Your task to perform on an android device: change the upload size in google photos Image 0: 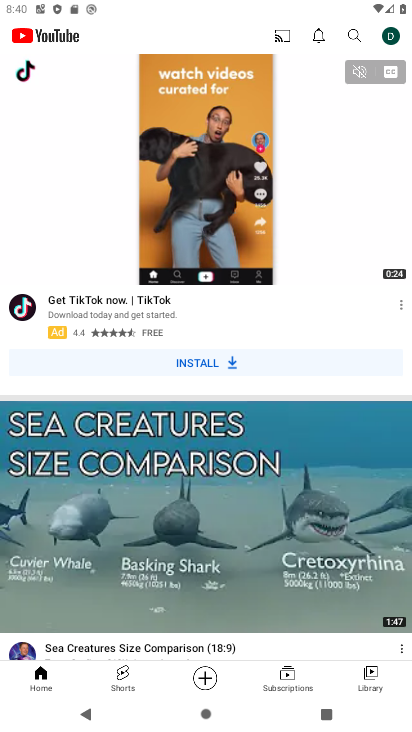
Step 0: press back button
Your task to perform on an android device: change the upload size in google photos Image 1: 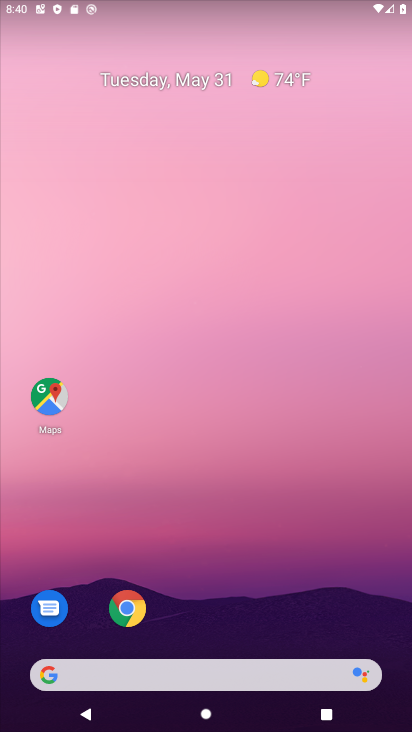
Step 1: drag from (216, 643) to (216, 10)
Your task to perform on an android device: change the upload size in google photos Image 2: 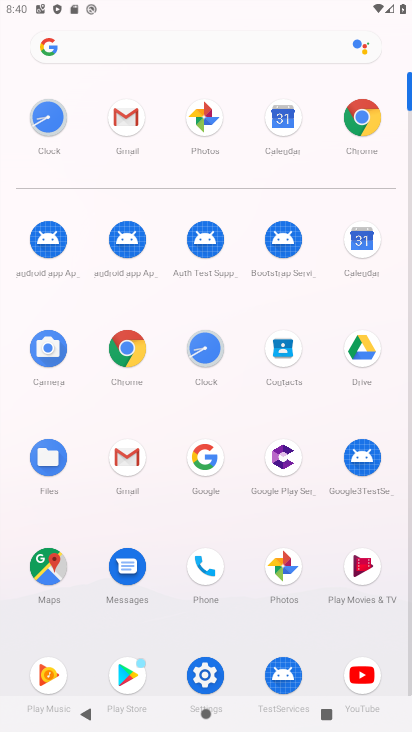
Step 2: click (287, 563)
Your task to perform on an android device: change the upload size in google photos Image 3: 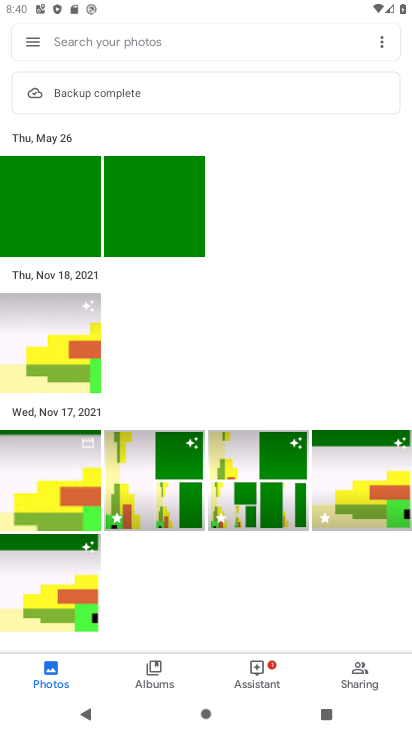
Step 3: click (33, 45)
Your task to perform on an android device: change the upload size in google photos Image 4: 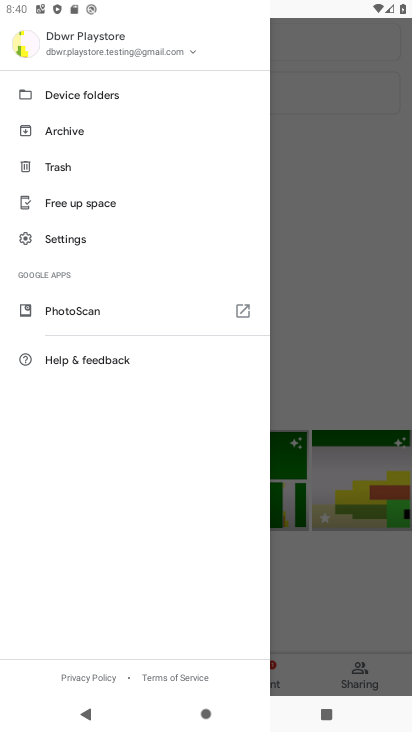
Step 4: click (73, 228)
Your task to perform on an android device: change the upload size in google photos Image 5: 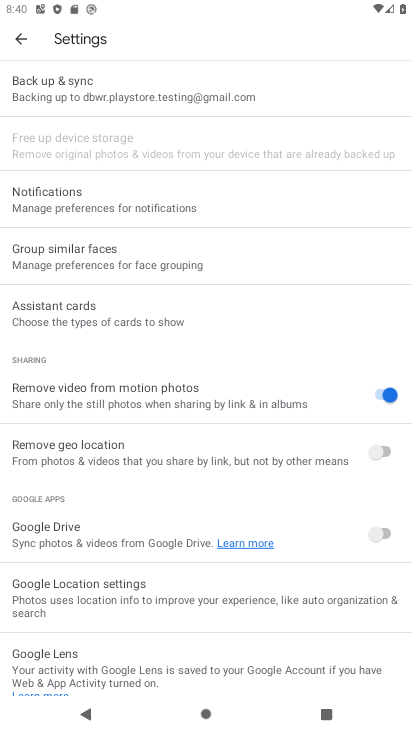
Step 5: click (43, 86)
Your task to perform on an android device: change the upload size in google photos Image 6: 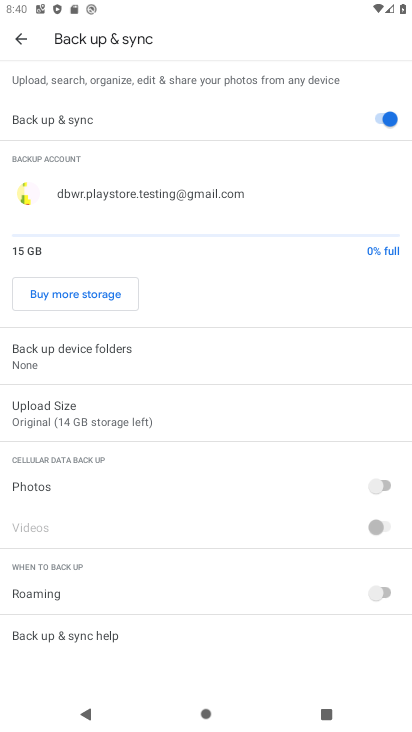
Step 6: click (81, 395)
Your task to perform on an android device: change the upload size in google photos Image 7: 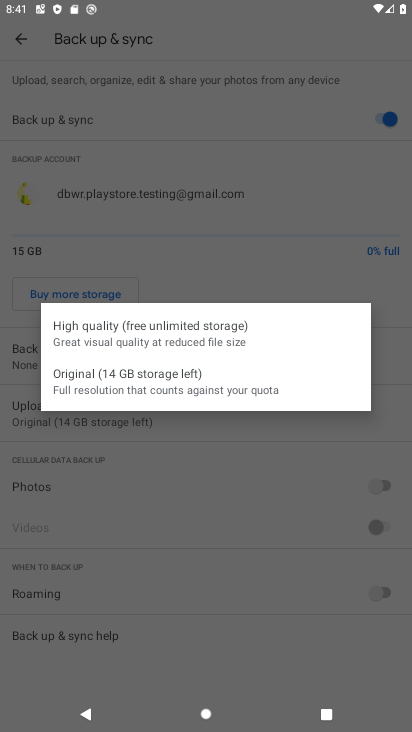
Step 7: click (76, 342)
Your task to perform on an android device: change the upload size in google photos Image 8: 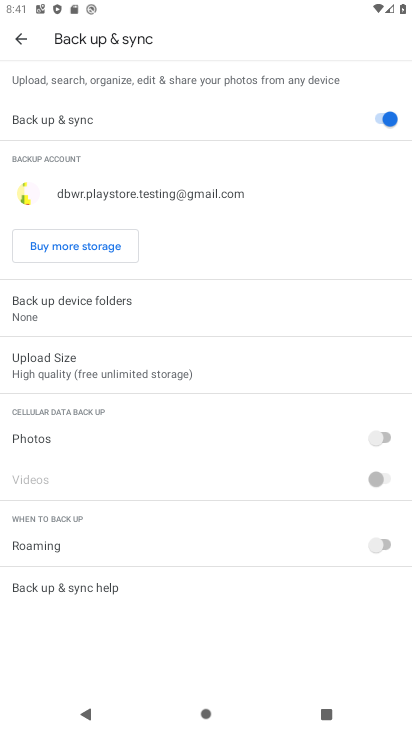
Step 8: task complete